Your task to perform on an android device: Search for Italian restaurants on Maps Image 0: 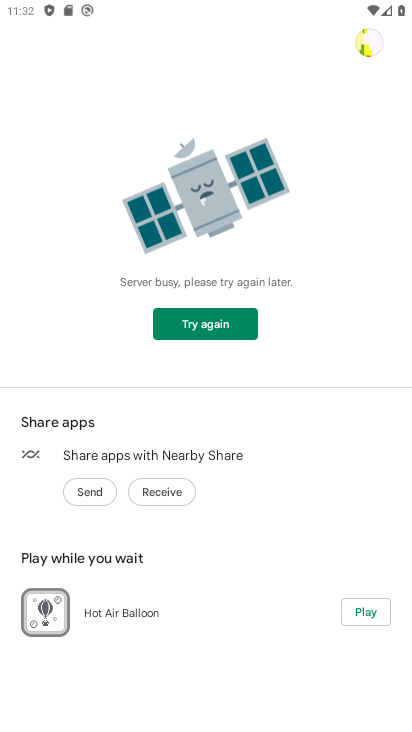
Step 0: press home button
Your task to perform on an android device: Search for Italian restaurants on Maps Image 1: 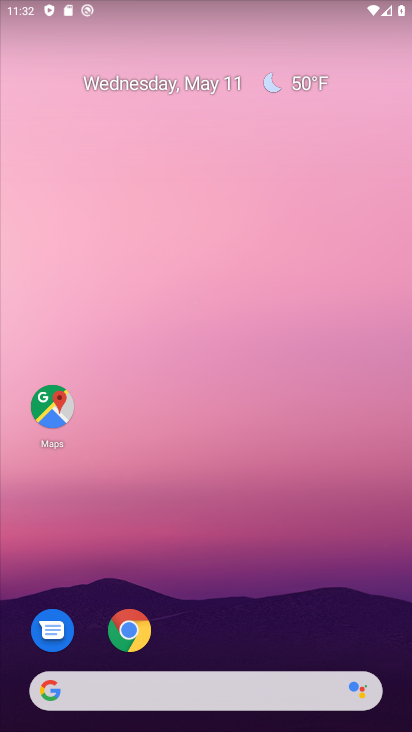
Step 1: drag from (225, 726) to (210, 148)
Your task to perform on an android device: Search for Italian restaurants on Maps Image 2: 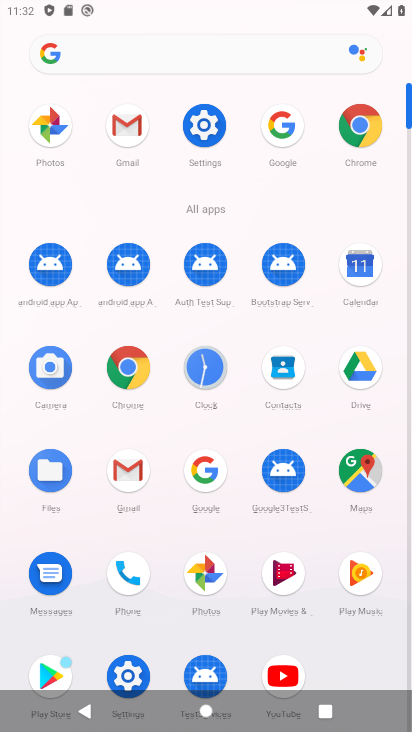
Step 2: click (358, 474)
Your task to perform on an android device: Search for Italian restaurants on Maps Image 3: 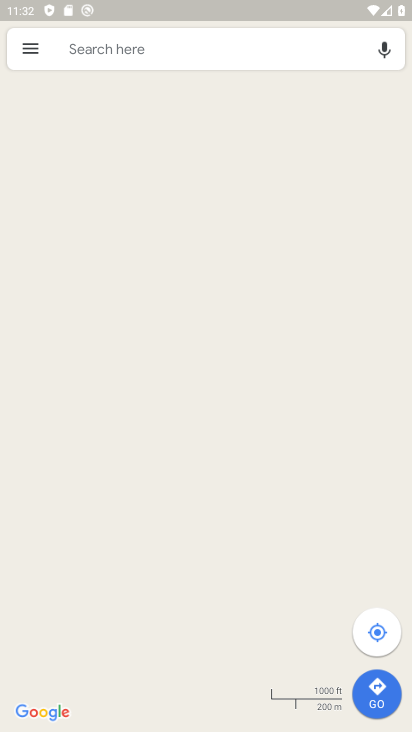
Step 3: click (174, 56)
Your task to perform on an android device: Search for Italian restaurants on Maps Image 4: 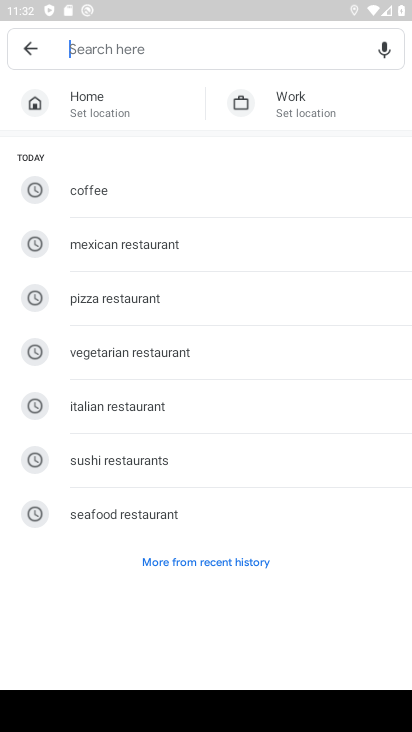
Step 4: type "italian restaurants"
Your task to perform on an android device: Search for Italian restaurants on Maps Image 5: 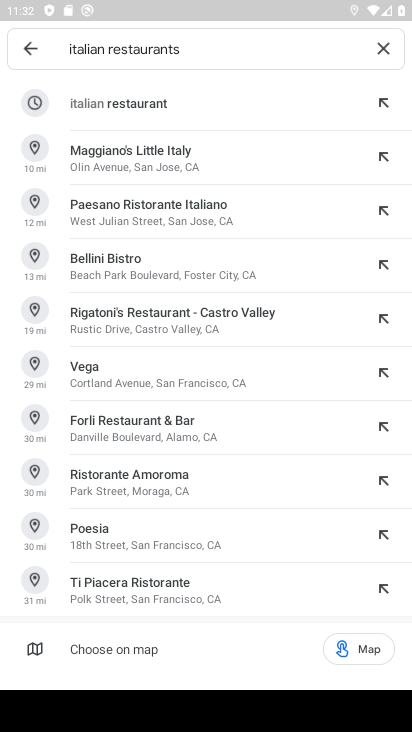
Step 5: click (141, 104)
Your task to perform on an android device: Search for Italian restaurants on Maps Image 6: 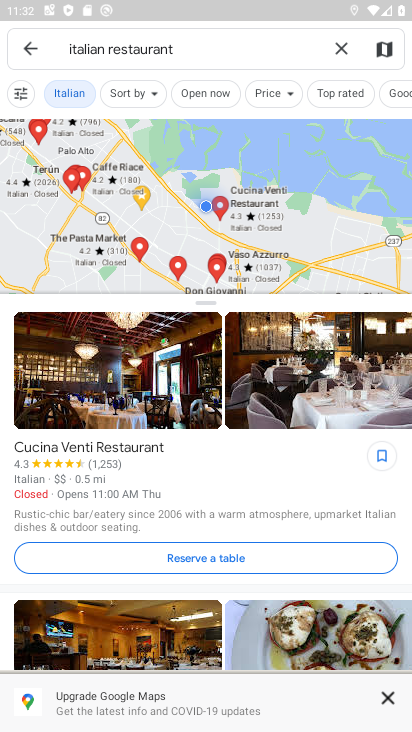
Step 6: task complete